Your task to perform on an android device: toggle notifications settings in the gmail app Image 0: 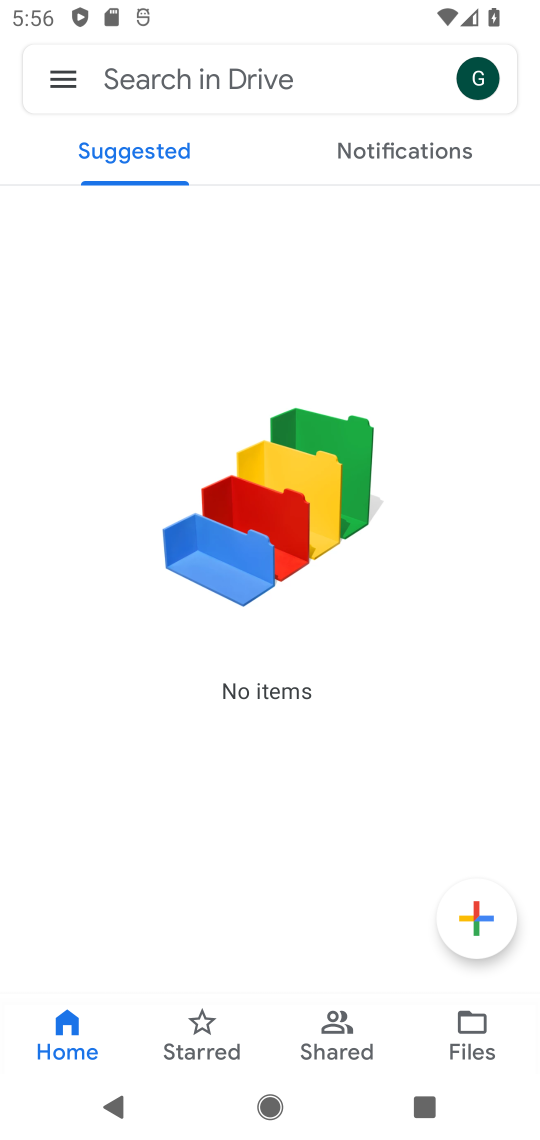
Step 0: press back button
Your task to perform on an android device: toggle notifications settings in the gmail app Image 1: 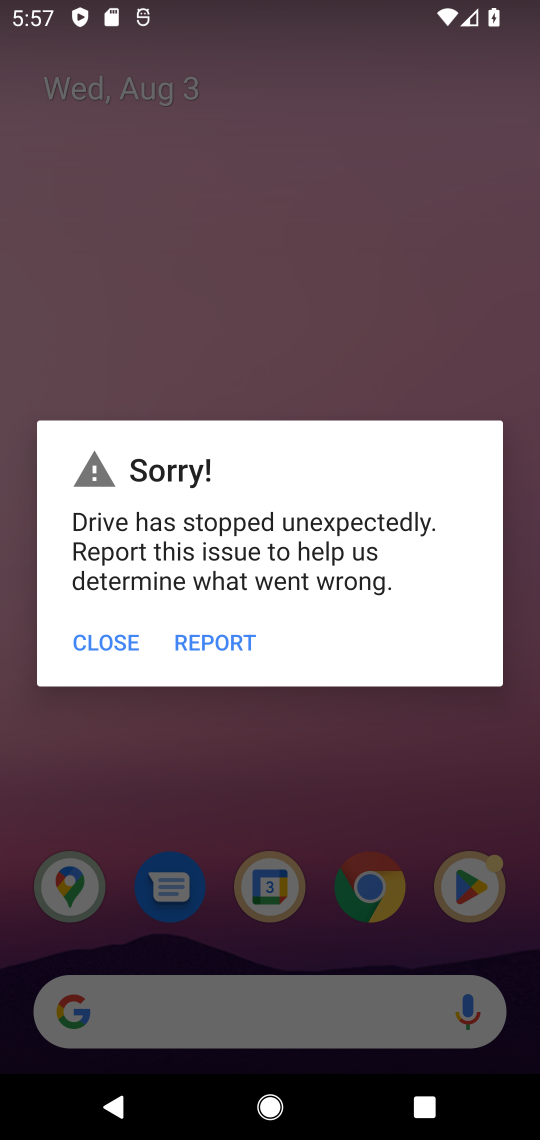
Step 1: click (109, 633)
Your task to perform on an android device: toggle notifications settings in the gmail app Image 2: 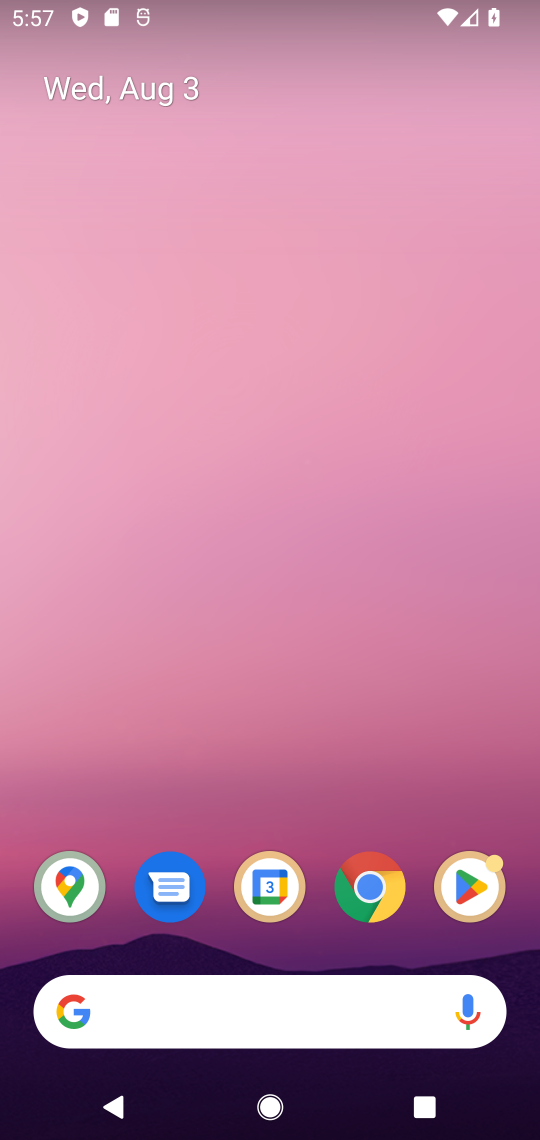
Step 2: drag from (221, 975) to (185, 47)
Your task to perform on an android device: toggle notifications settings in the gmail app Image 3: 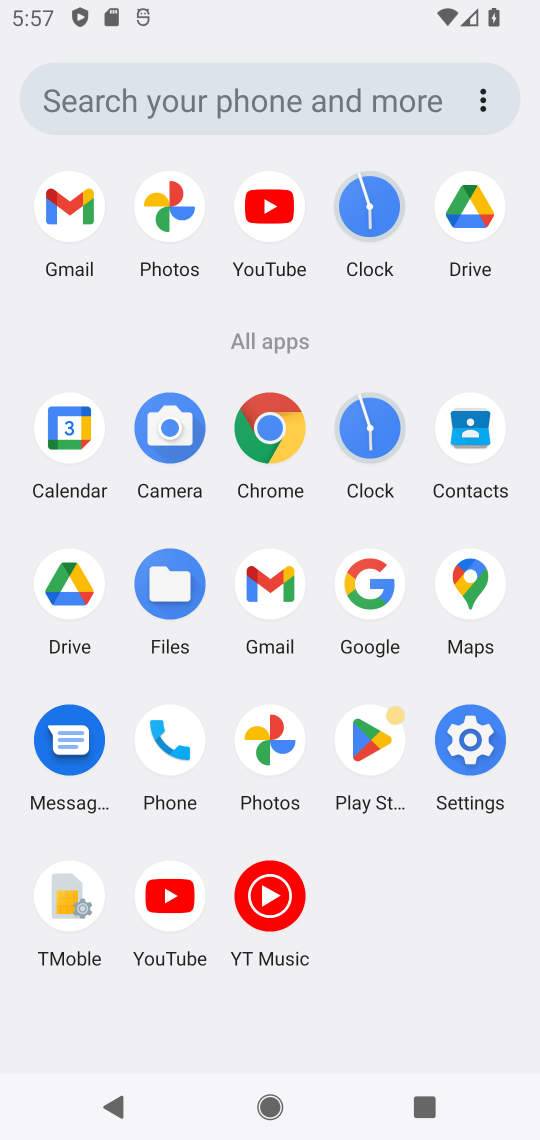
Step 3: click (263, 621)
Your task to perform on an android device: toggle notifications settings in the gmail app Image 4: 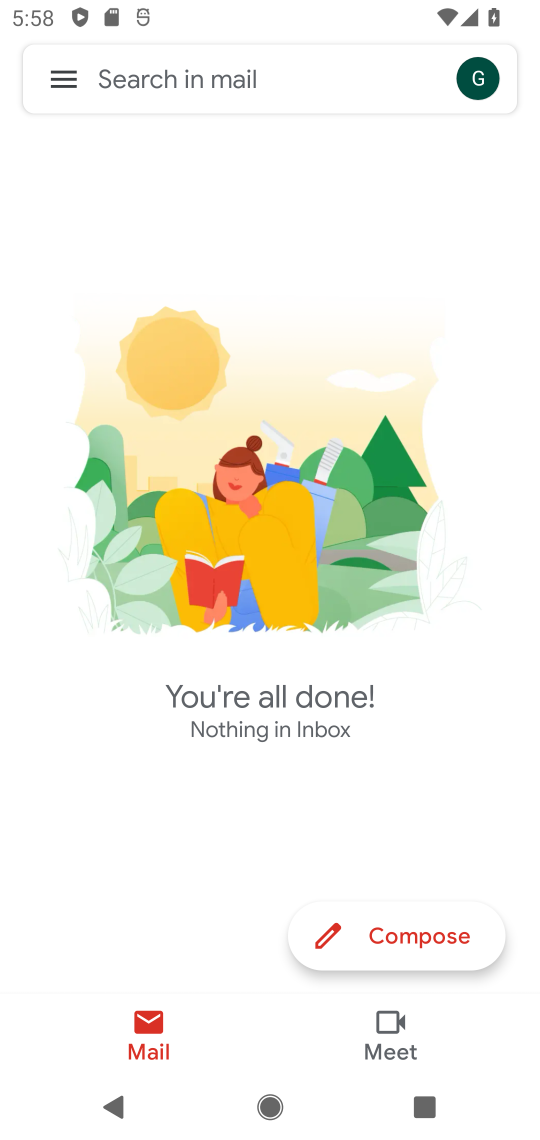
Step 4: click (46, 99)
Your task to perform on an android device: toggle notifications settings in the gmail app Image 5: 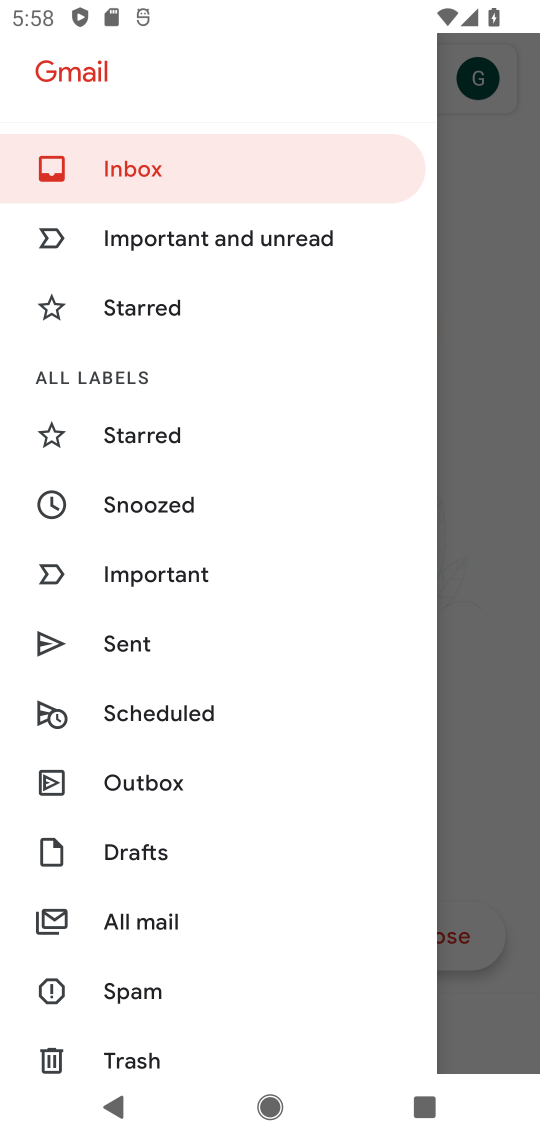
Step 5: drag from (267, 930) to (218, 174)
Your task to perform on an android device: toggle notifications settings in the gmail app Image 6: 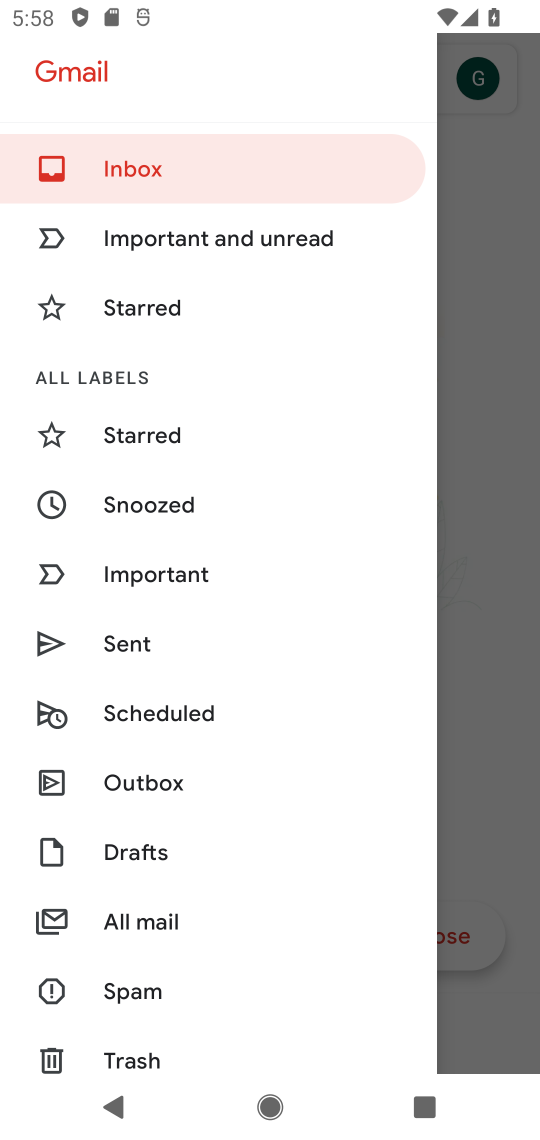
Step 6: drag from (188, 889) to (249, 165)
Your task to perform on an android device: toggle notifications settings in the gmail app Image 7: 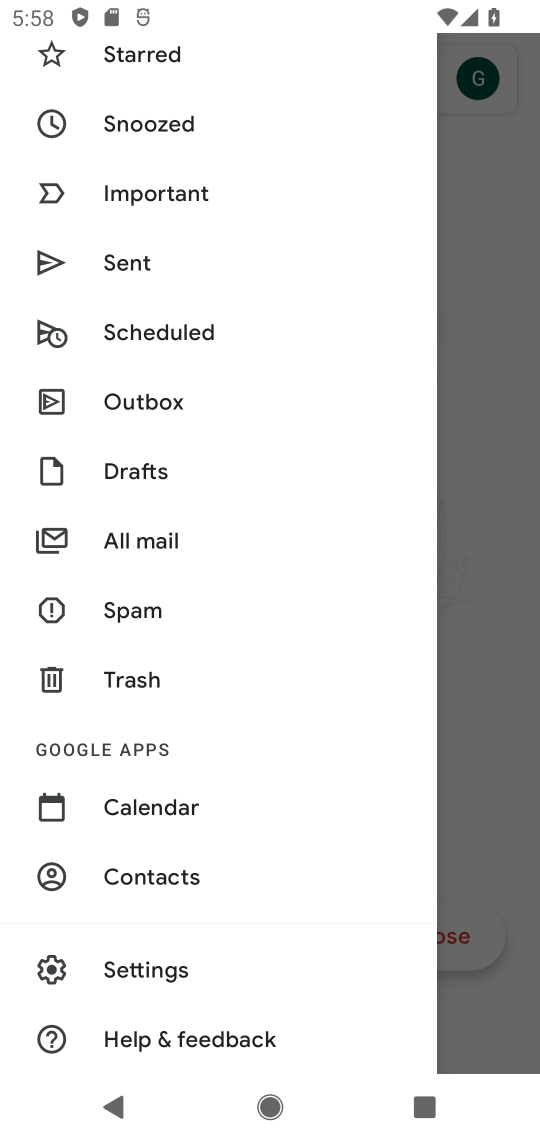
Step 7: click (164, 970)
Your task to perform on an android device: toggle notifications settings in the gmail app Image 8: 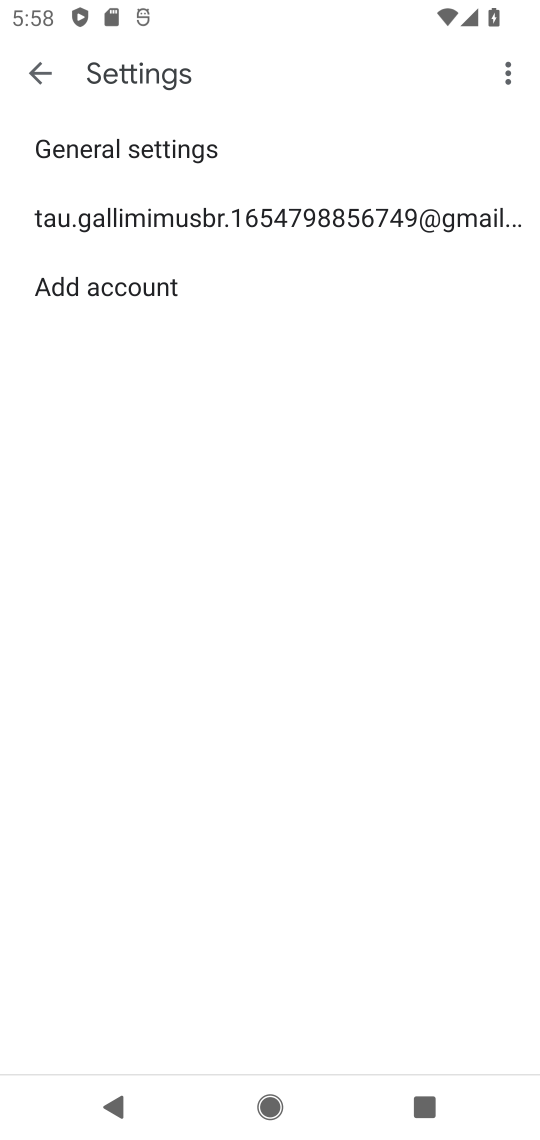
Step 8: click (78, 140)
Your task to perform on an android device: toggle notifications settings in the gmail app Image 9: 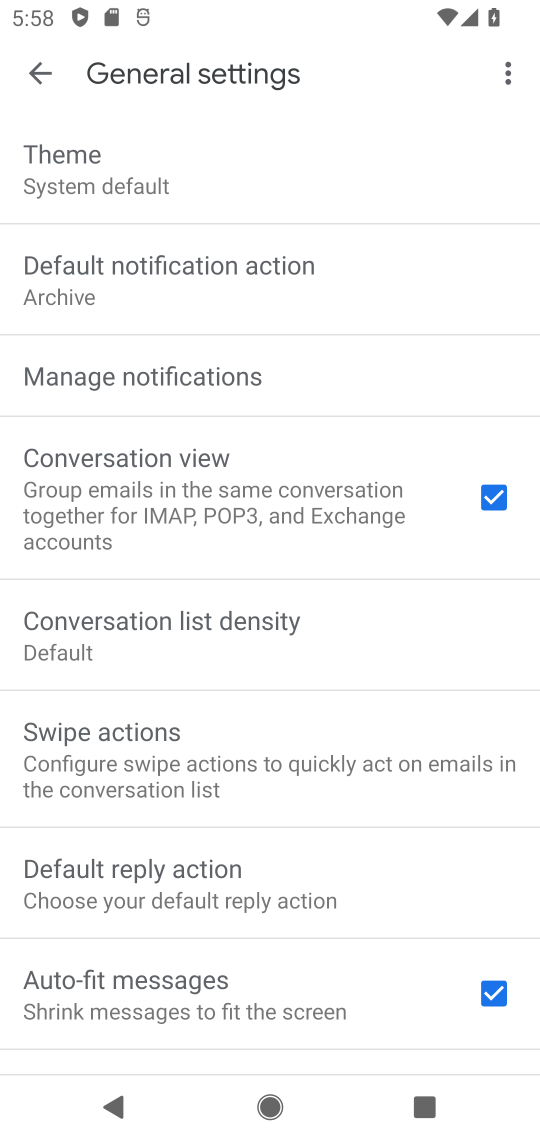
Step 9: click (200, 362)
Your task to perform on an android device: toggle notifications settings in the gmail app Image 10: 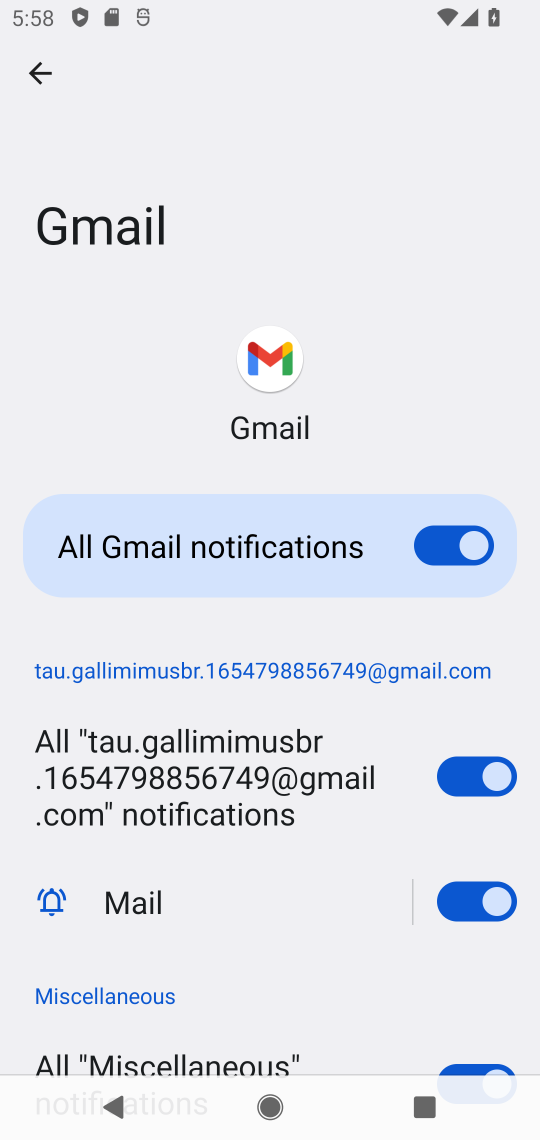
Step 10: click (467, 536)
Your task to perform on an android device: toggle notifications settings in the gmail app Image 11: 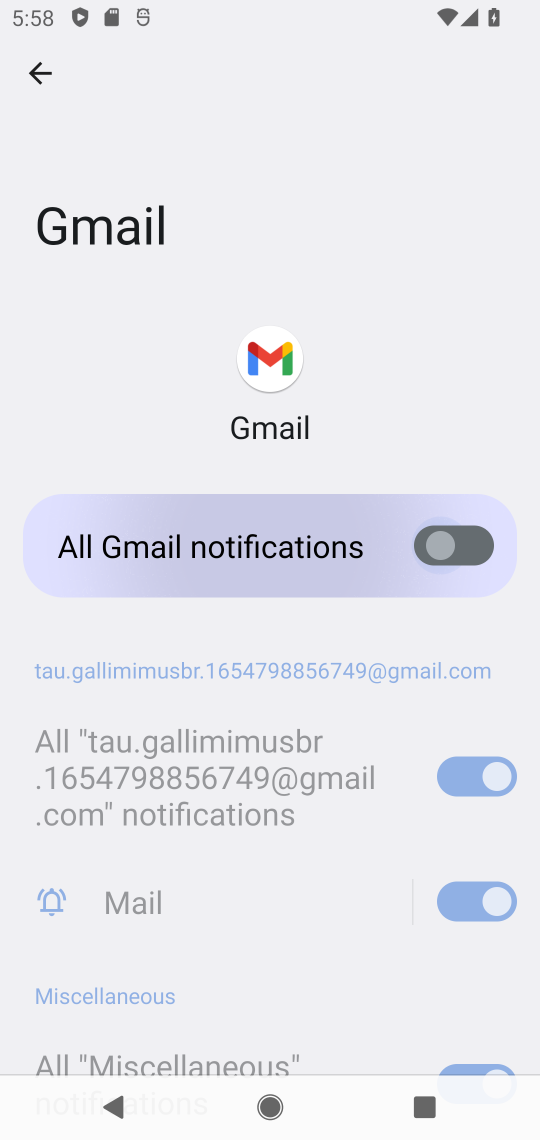
Step 11: task complete